Your task to perform on an android device: add a contact Image 0: 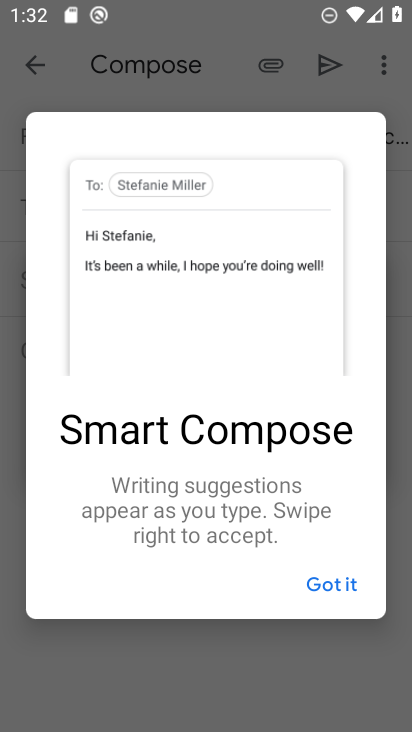
Step 0: press home button
Your task to perform on an android device: add a contact Image 1: 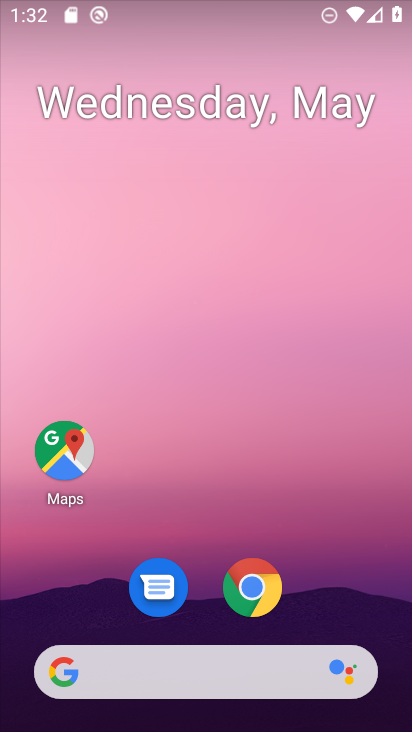
Step 1: drag from (308, 599) to (239, 349)
Your task to perform on an android device: add a contact Image 2: 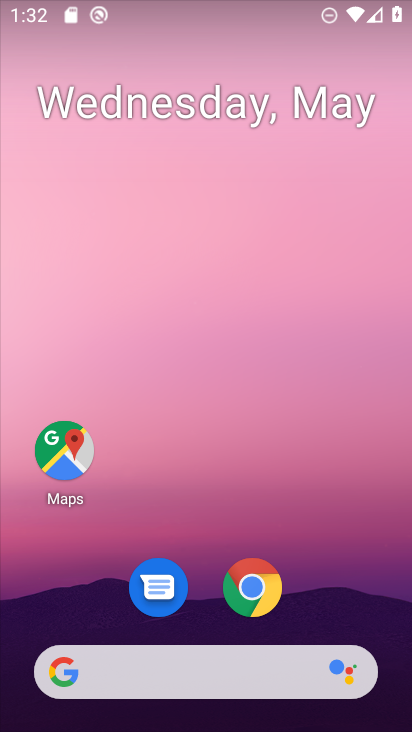
Step 2: drag from (289, 524) to (260, 130)
Your task to perform on an android device: add a contact Image 3: 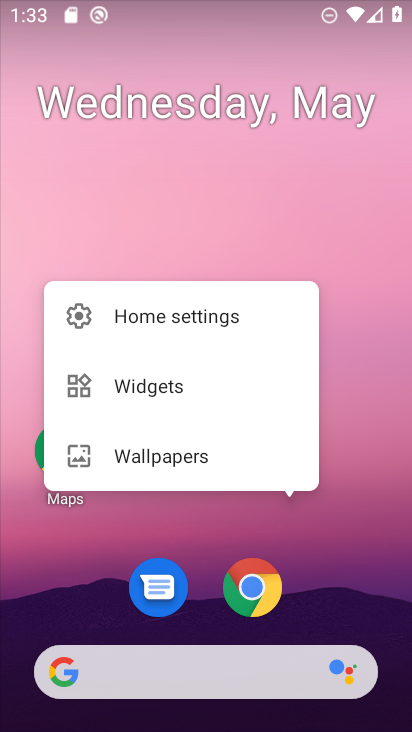
Step 3: click (254, 566)
Your task to perform on an android device: add a contact Image 4: 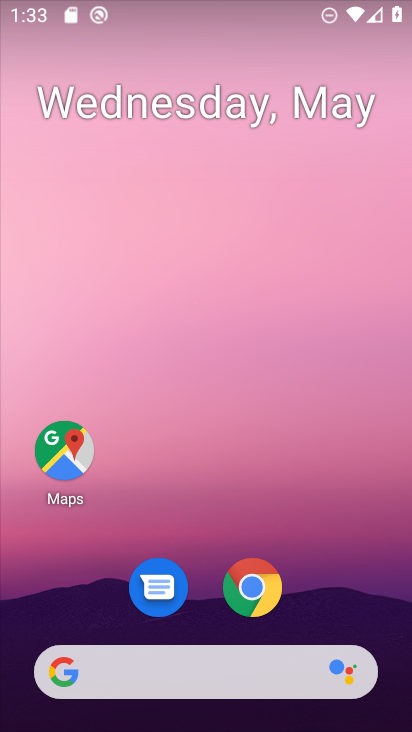
Step 4: click (278, 119)
Your task to perform on an android device: add a contact Image 5: 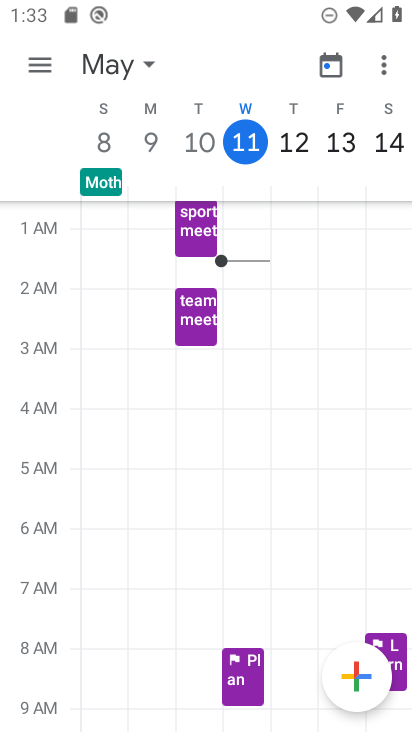
Step 5: press back button
Your task to perform on an android device: add a contact Image 6: 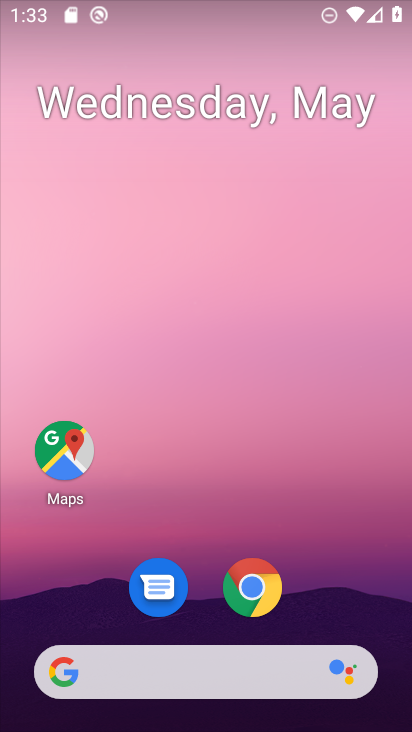
Step 6: drag from (319, 608) to (268, 195)
Your task to perform on an android device: add a contact Image 7: 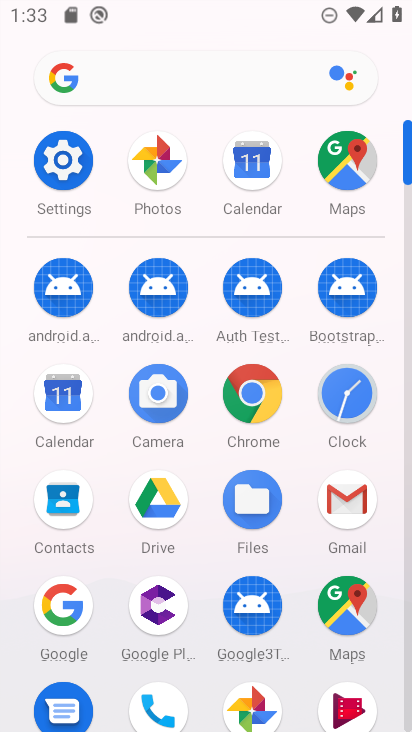
Step 7: click (79, 542)
Your task to perform on an android device: add a contact Image 8: 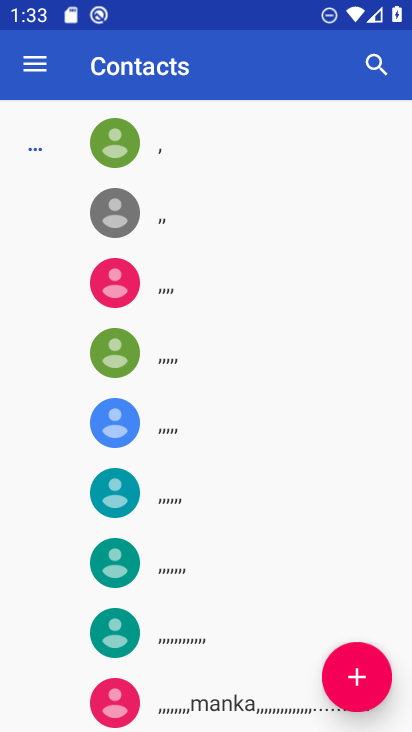
Step 8: click (345, 676)
Your task to perform on an android device: add a contact Image 9: 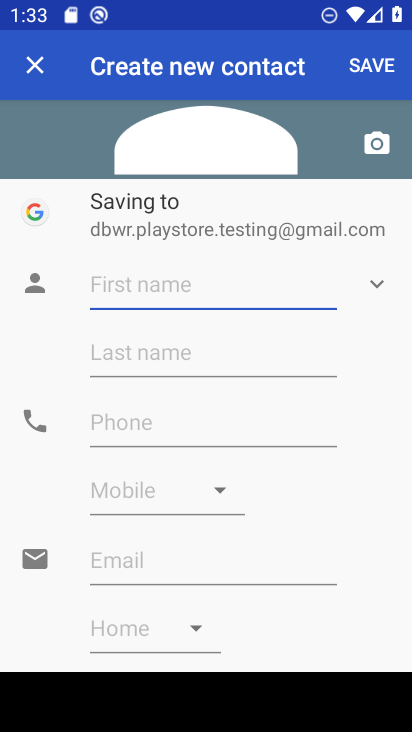
Step 9: click (192, 281)
Your task to perform on an android device: add a contact Image 10: 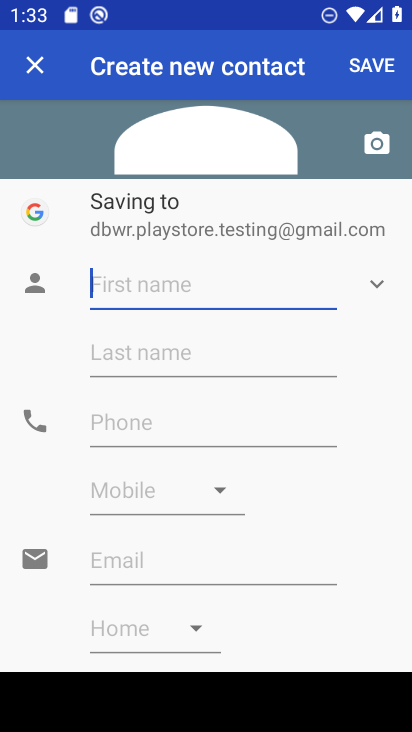
Step 10: type "narottam"
Your task to perform on an android device: add a contact Image 11: 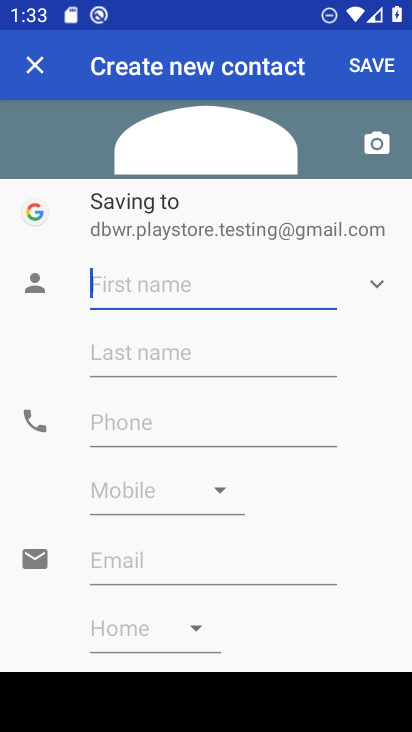
Step 11: click (216, 338)
Your task to perform on an android device: add a contact Image 12: 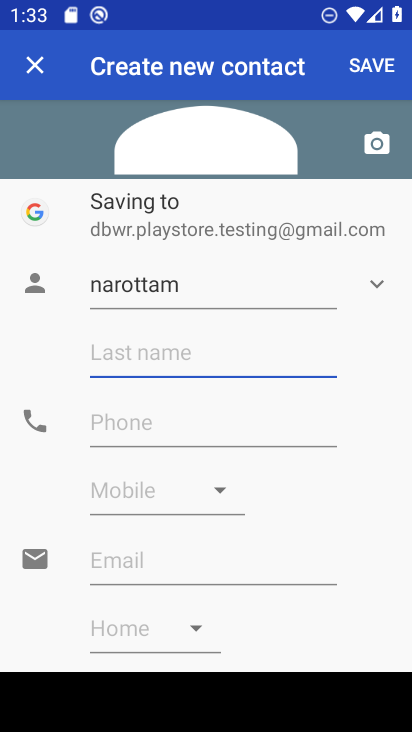
Step 12: click (224, 354)
Your task to perform on an android device: add a contact Image 13: 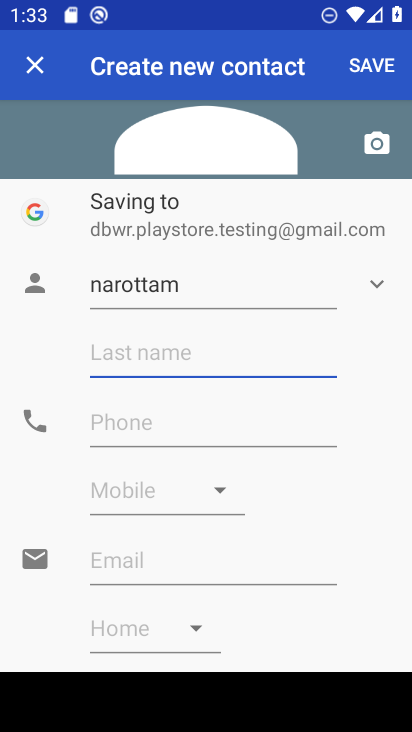
Step 13: type "mishra"
Your task to perform on an android device: add a contact Image 14: 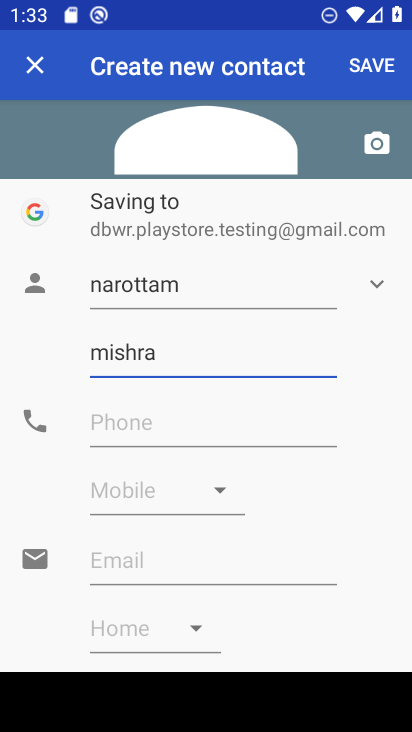
Step 14: click (167, 431)
Your task to perform on an android device: add a contact Image 15: 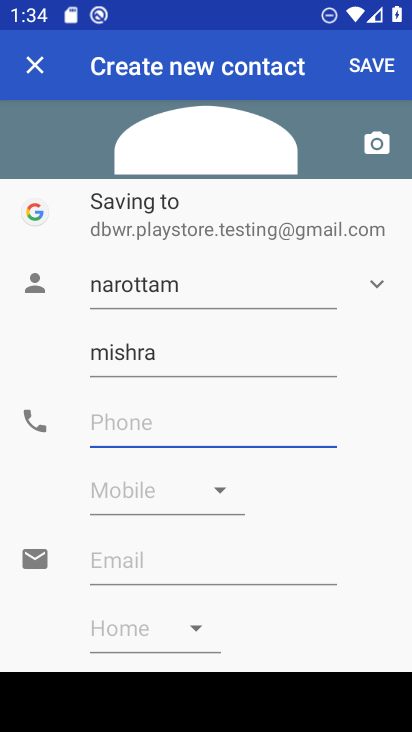
Step 15: type "9009900098"
Your task to perform on an android device: add a contact Image 16: 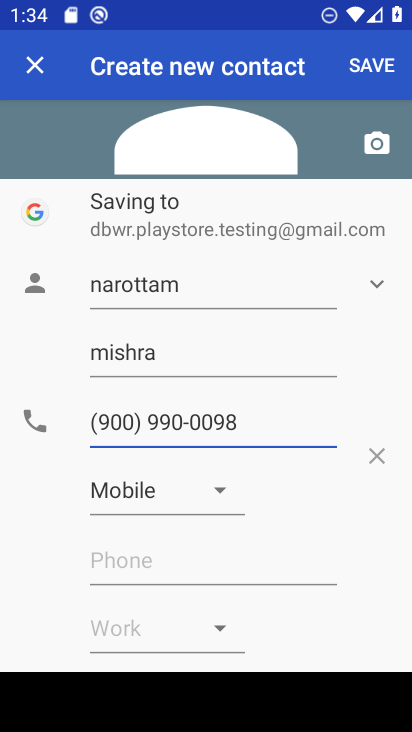
Step 16: click (381, 57)
Your task to perform on an android device: add a contact Image 17: 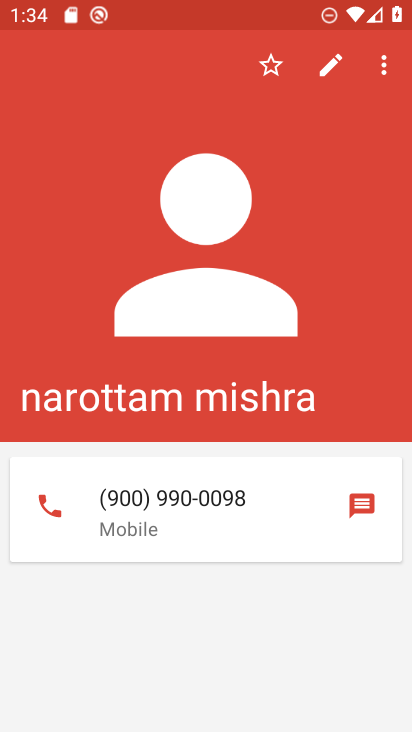
Step 17: task complete